Your task to perform on an android device: toggle pop-ups in chrome Image 0: 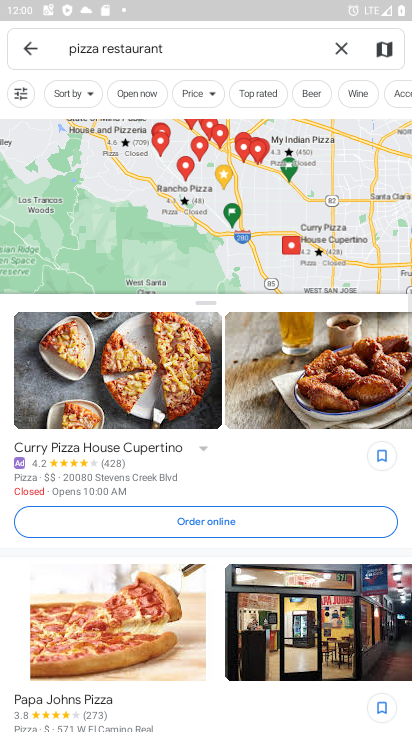
Step 0: press home button
Your task to perform on an android device: toggle pop-ups in chrome Image 1: 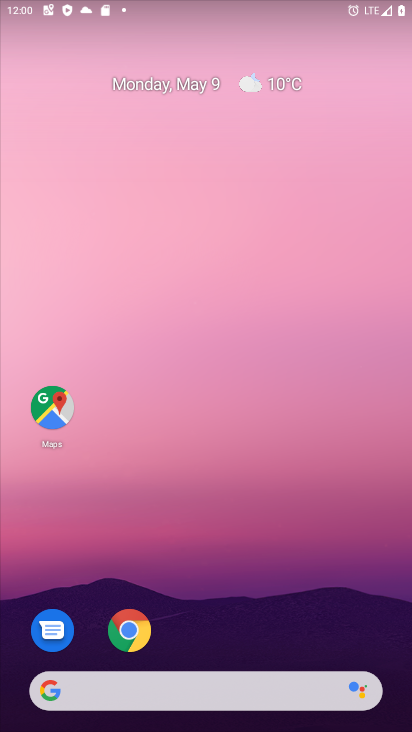
Step 1: drag from (355, 584) to (275, 60)
Your task to perform on an android device: toggle pop-ups in chrome Image 2: 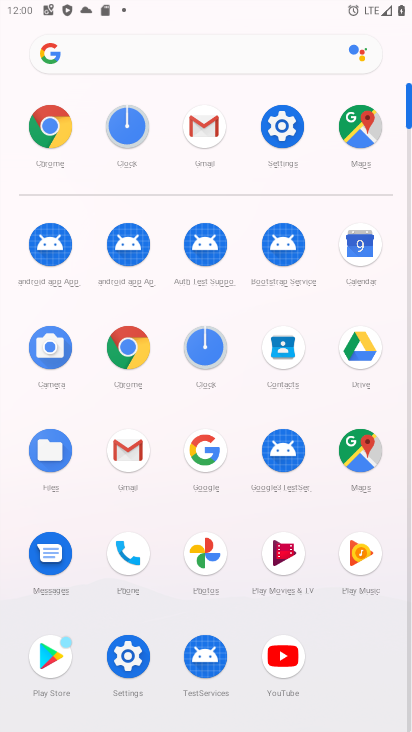
Step 2: click (141, 350)
Your task to perform on an android device: toggle pop-ups in chrome Image 3: 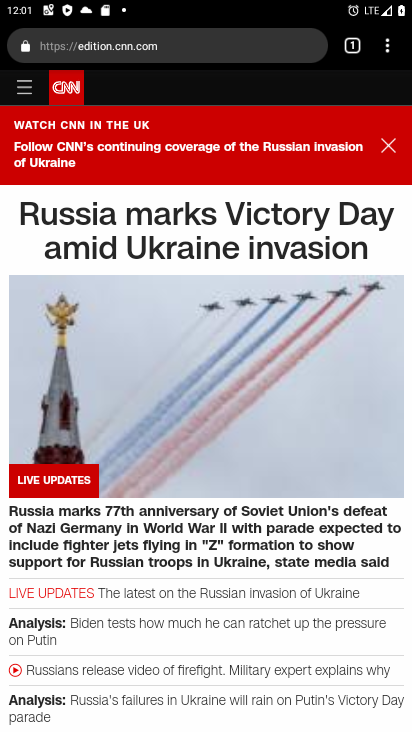
Step 3: press home button
Your task to perform on an android device: toggle pop-ups in chrome Image 4: 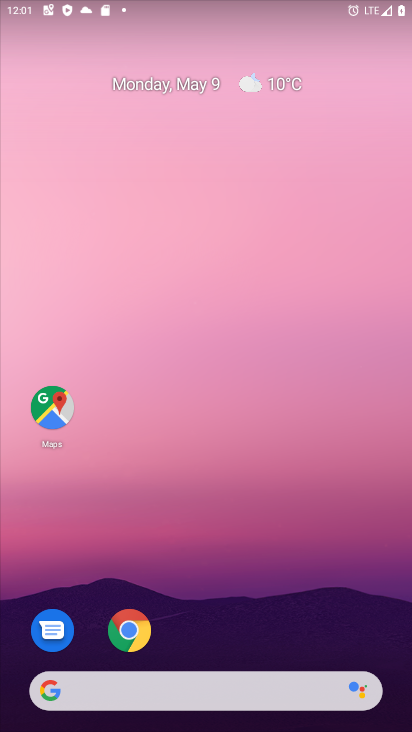
Step 4: drag from (316, 646) to (209, 6)
Your task to perform on an android device: toggle pop-ups in chrome Image 5: 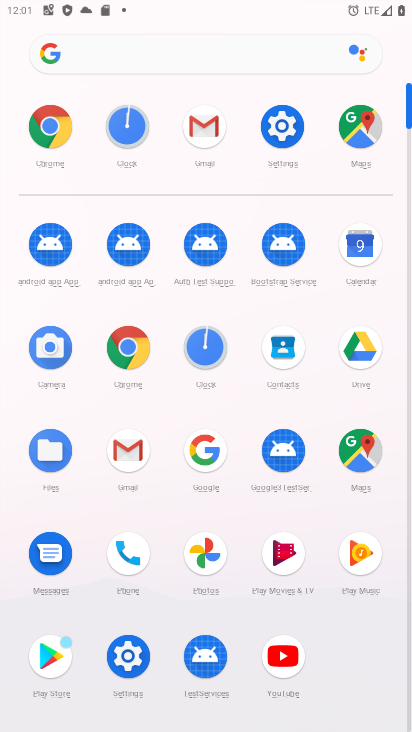
Step 5: click (125, 382)
Your task to perform on an android device: toggle pop-ups in chrome Image 6: 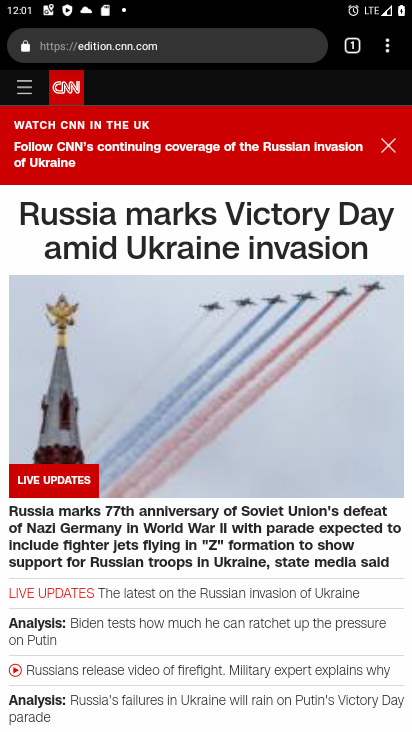
Step 6: press back button
Your task to perform on an android device: toggle pop-ups in chrome Image 7: 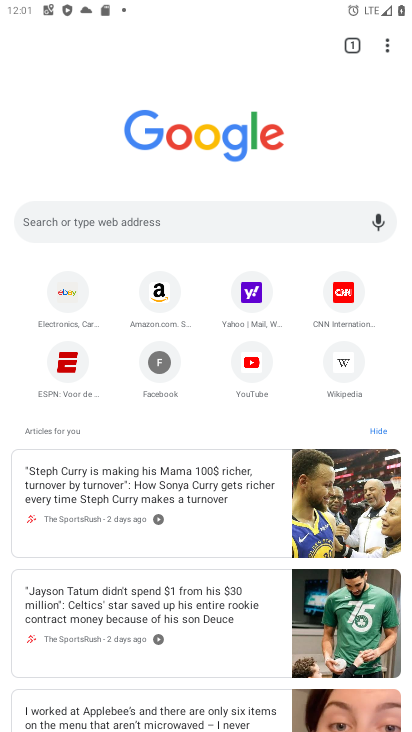
Step 7: click (387, 46)
Your task to perform on an android device: toggle pop-ups in chrome Image 8: 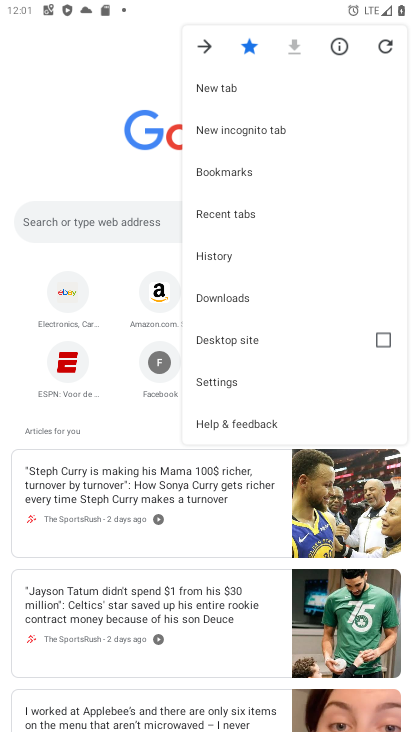
Step 8: click (257, 393)
Your task to perform on an android device: toggle pop-ups in chrome Image 9: 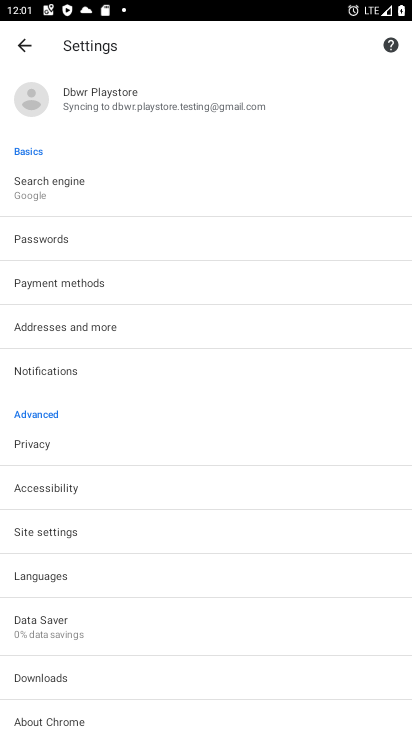
Step 9: click (171, 535)
Your task to perform on an android device: toggle pop-ups in chrome Image 10: 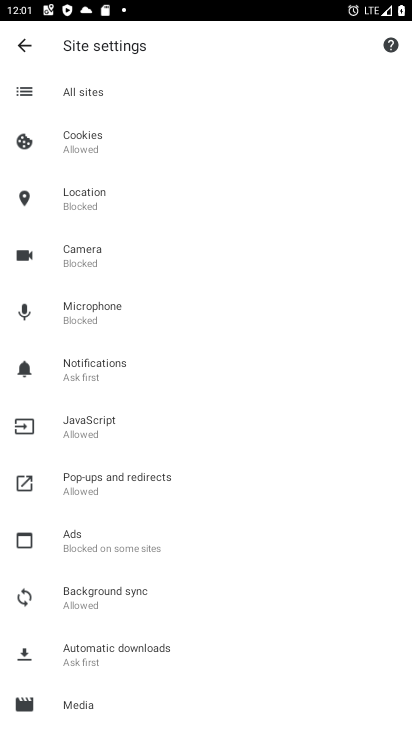
Step 10: click (147, 482)
Your task to perform on an android device: toggle pop-ups in chrome Image 11: 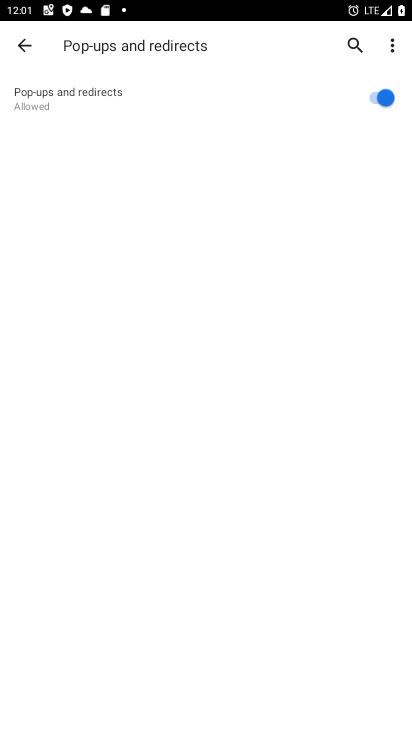
Step 11: click (364, 108)
Your task to perform on an android device: toggle pop-ups in chrome Image 12: 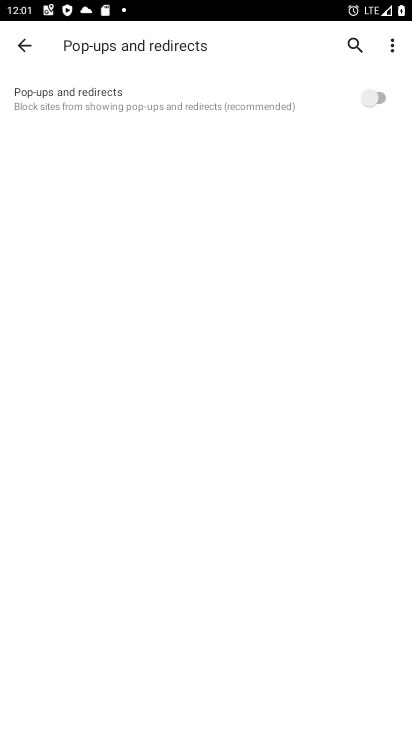
Step 12: task complete